Your task to perform on an android device: Search for a home improvement project you can do. Image 0: 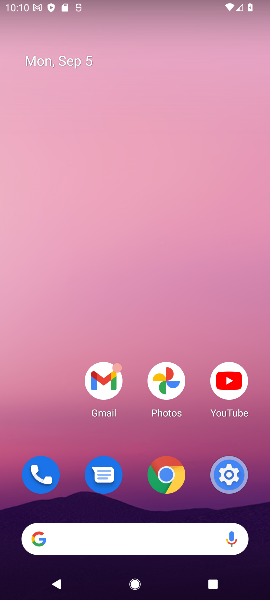
Step 0: click (92, 537)
Your task to perform on an android device: Search for a home improvement project you can do. Image 1: 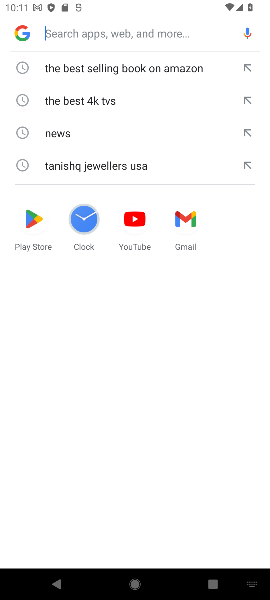
Step 1: type " a home improvement project you can do"
Your task to perform on an android device: Search for a home improvement project you can do. Image 2: 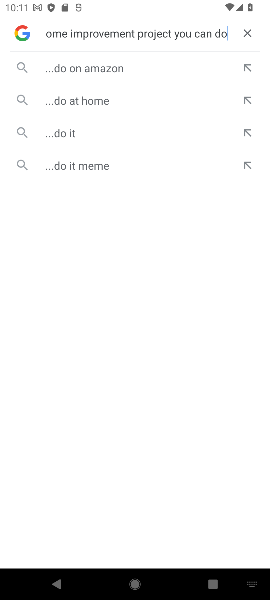
Step 2: click (99, 77)
Your task to perform on an android device: Search for a home improvement project you can do. Image 3: 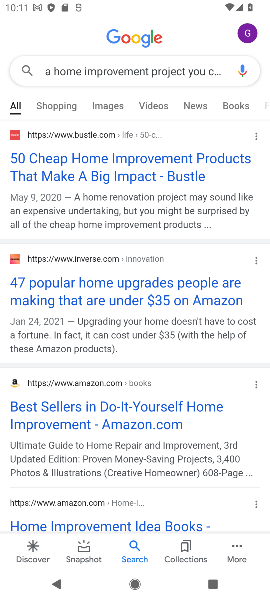
Step 3: task complete